Your task to perform on an android device: toggle notifications settings in the gmail app Image 0: 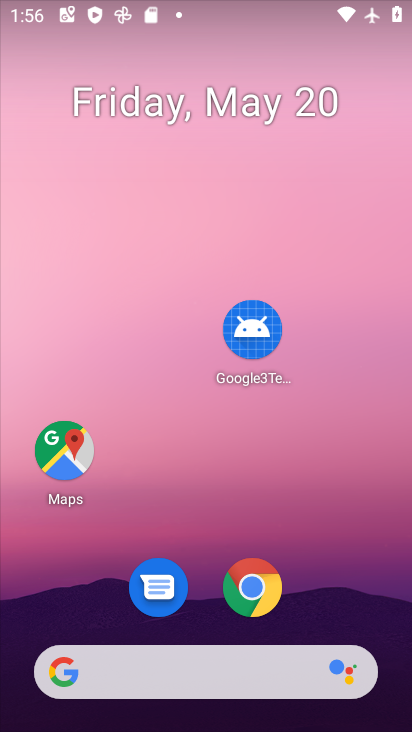
Step 0: drag from (331, 483) to (251, 107)
Your task to perform on an android device: toggle notifications settings in the gmail app Image 1: 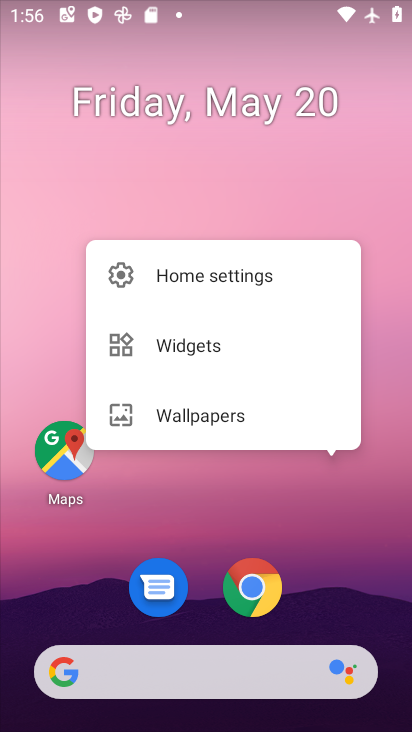
Step 1: click (380, 270)
Your task to perform on an android device: toggle notifications settings in the gmail app Image 2: 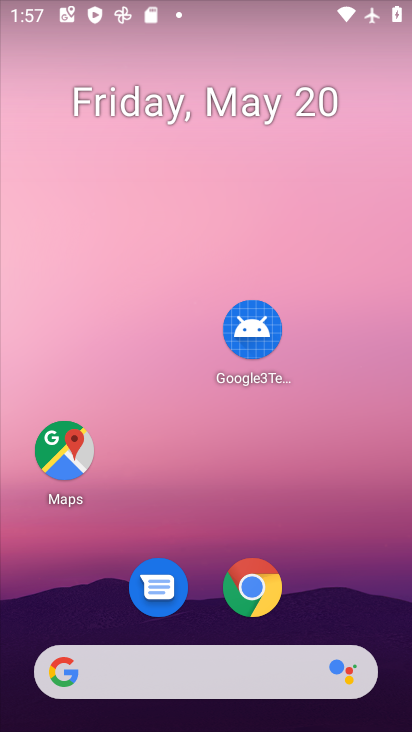
Step 2: drag from (148, 461) to (218, 14)
Your task to perform on an android device: toggle notifications settings in the gmail app Image 3: 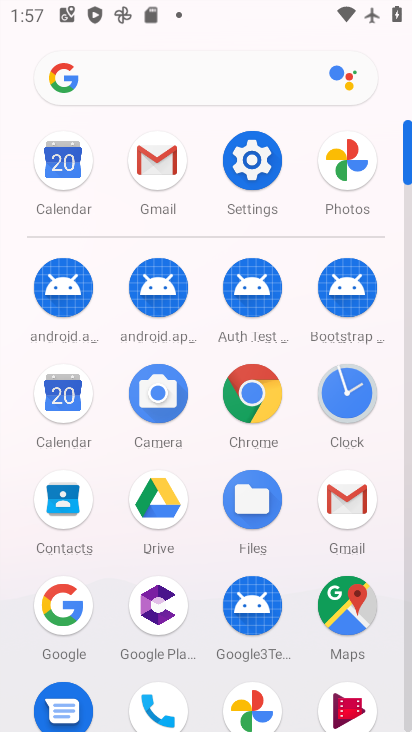
Step 3: click (344, 498)
Your task to perform on an android device: toggle notifications settings in the gmail app Image 4: 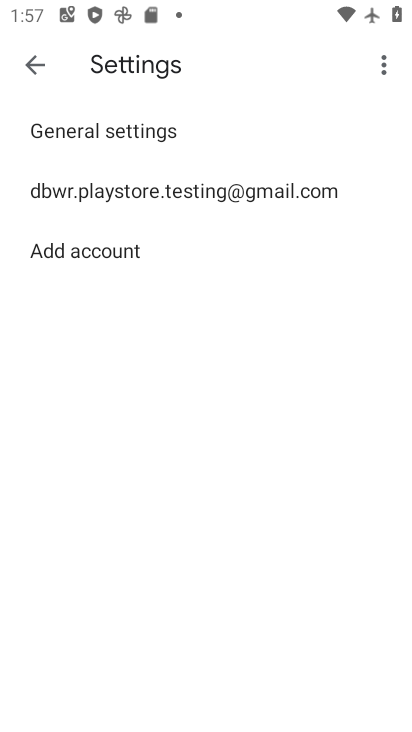
Step 4: click (88, 125)
Your task to perform on an android device: toggle notifications settings in the gmail app Image 5: 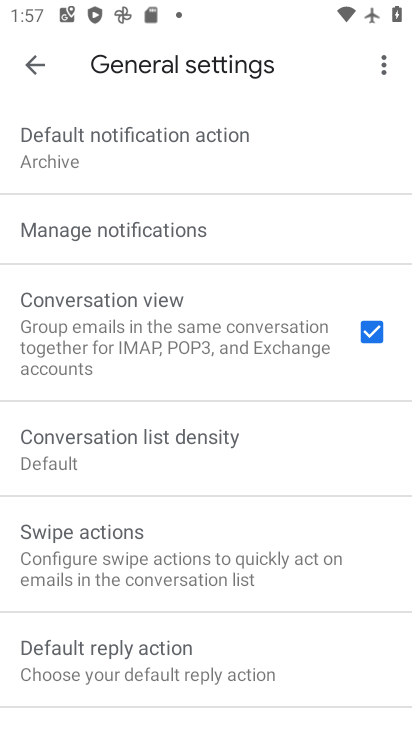
Step 5: click (145, 220)
Your task to perform on an android device: toggle notifications settings in the gmail app Image 6: 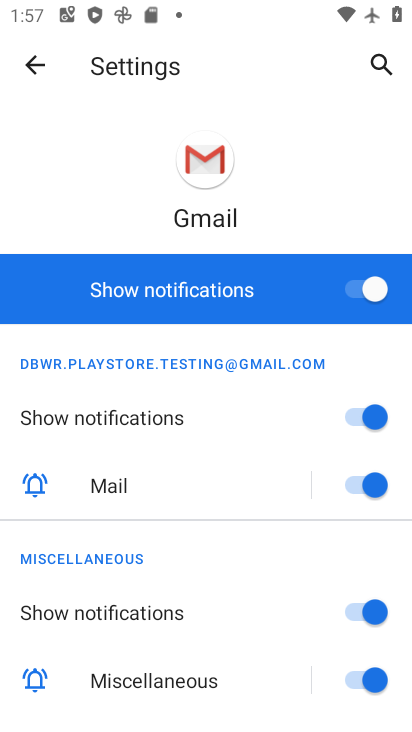
Step 6: click (378, 283)
Your task to perform on an android device: toggle notifications settings in the gmail app Image 7: 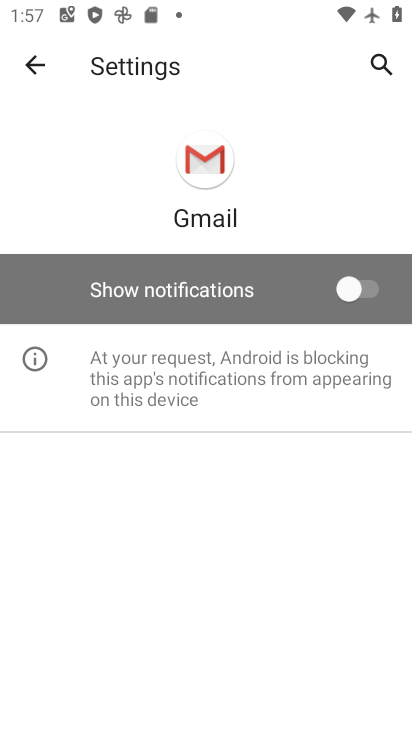
Step 7: task complete